Your task to perform on an android device: Clear all items from cart on target.com. Add "acer predator" to the cart on target.com Image 0: 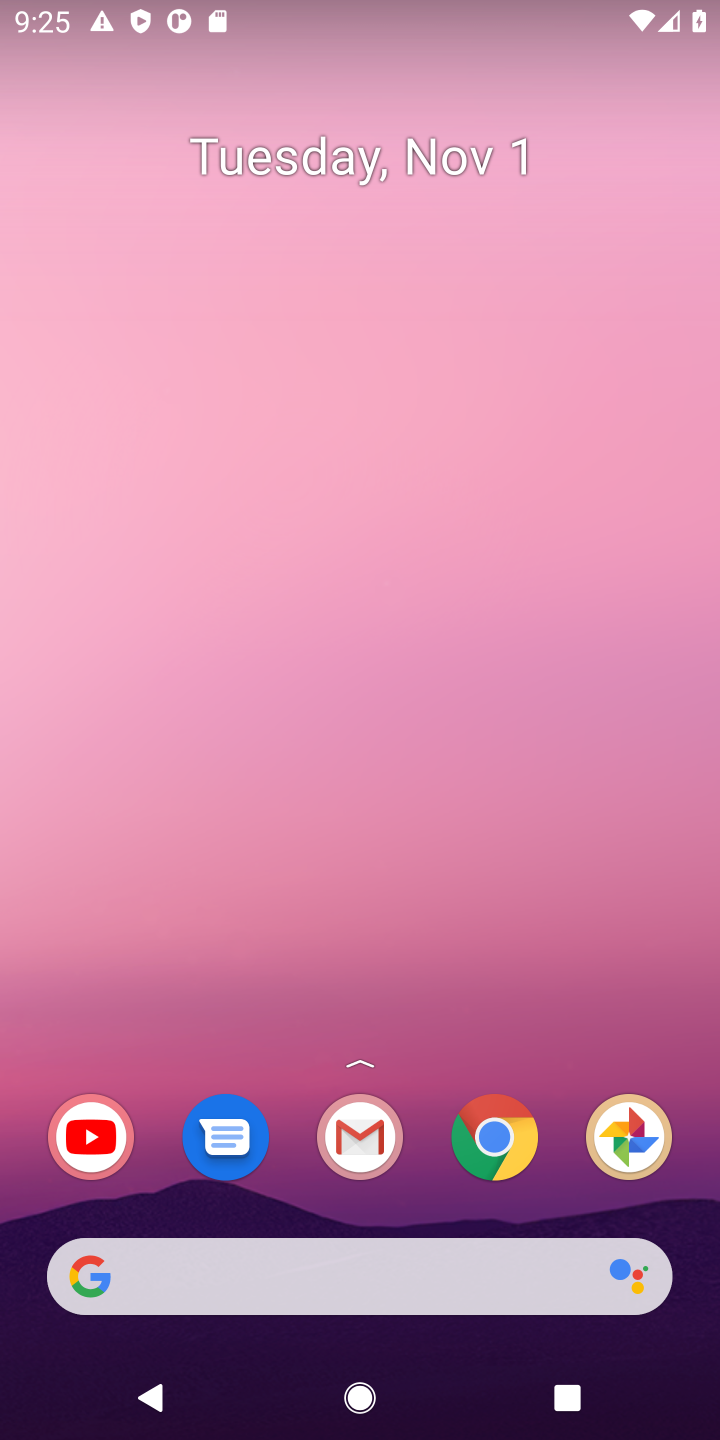
Step 0: click (516, 1129)
Your task to perform on an android device: Clear all items from cart on target.com. Add "acer predator" to the cart on target.com Image 1: 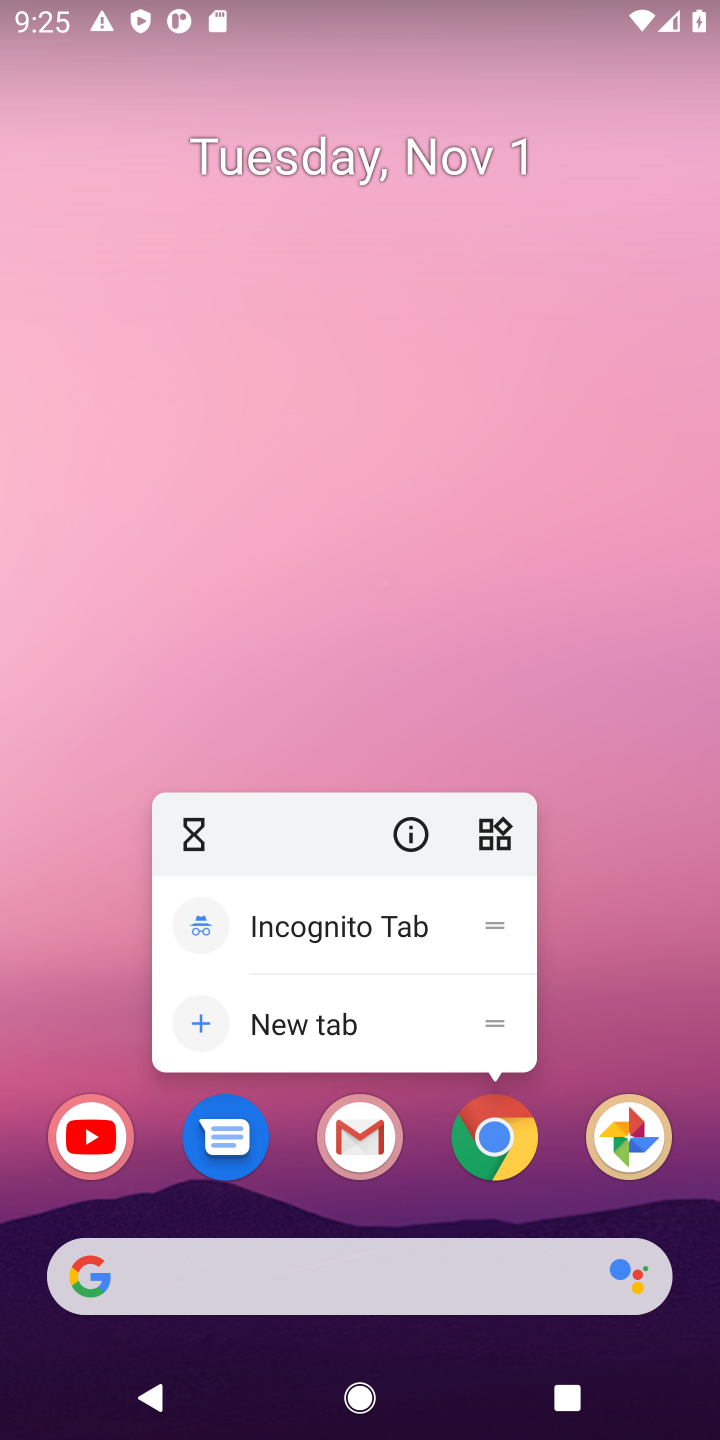
Step 1: click (465, 571)
Your task to perform on an android device: Clear all items from cart on target.com. Add "acer predator" to the cart on target.com Image 2: 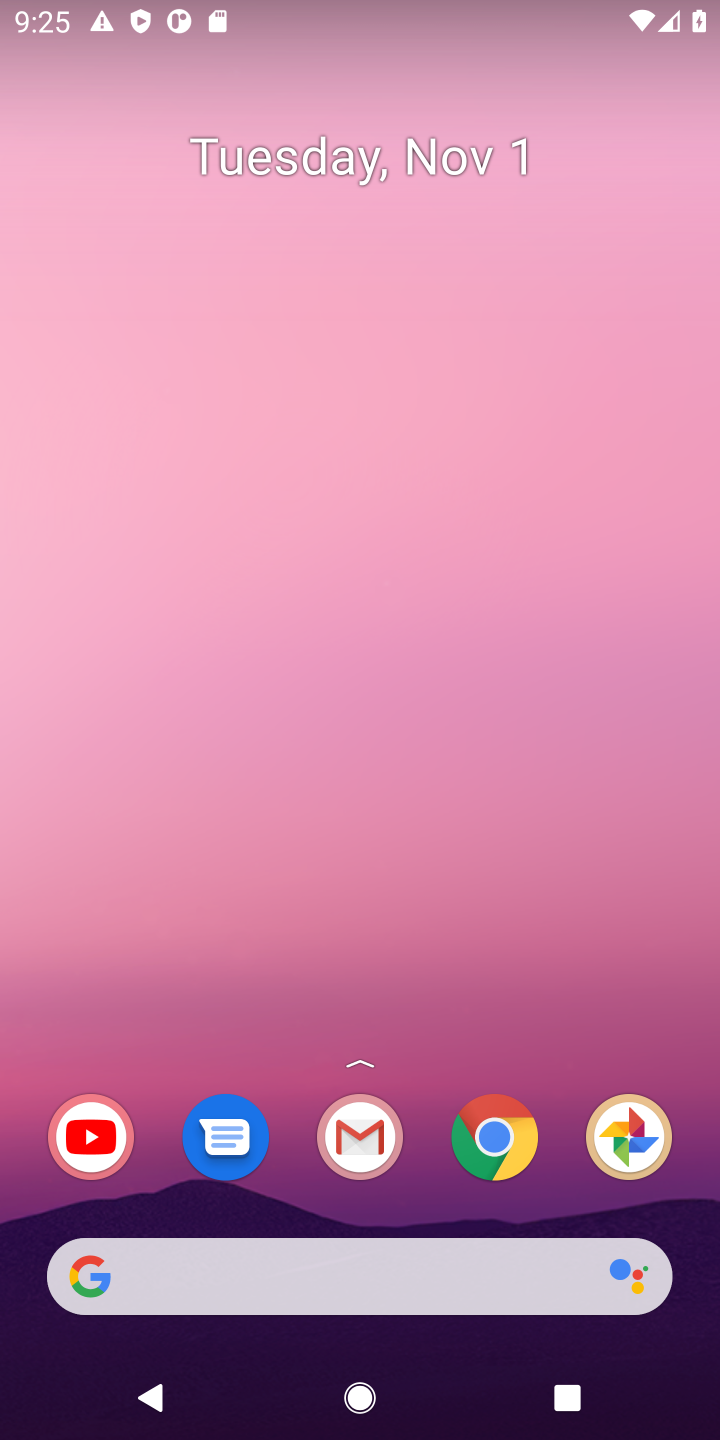
Step 2: click (498, 1136)
Your task to perform on an android device: Clear all items from cart on target.com. Add "acer predator" to the cart on target.com Image 3: 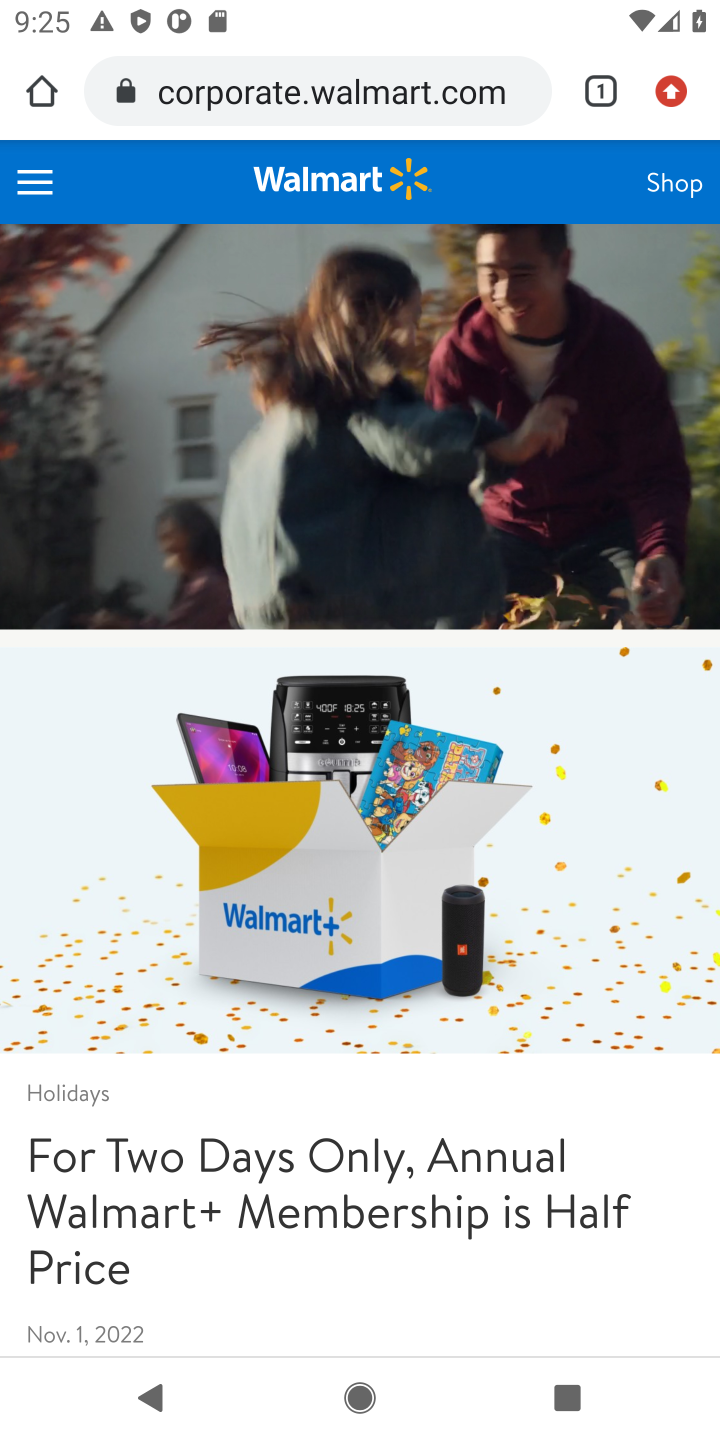
Step 3: click (367, 97)
Your task to perform on an android device: Clear all items from cart on target.com. Add "acer predator" to the cart on target.com Image 4: 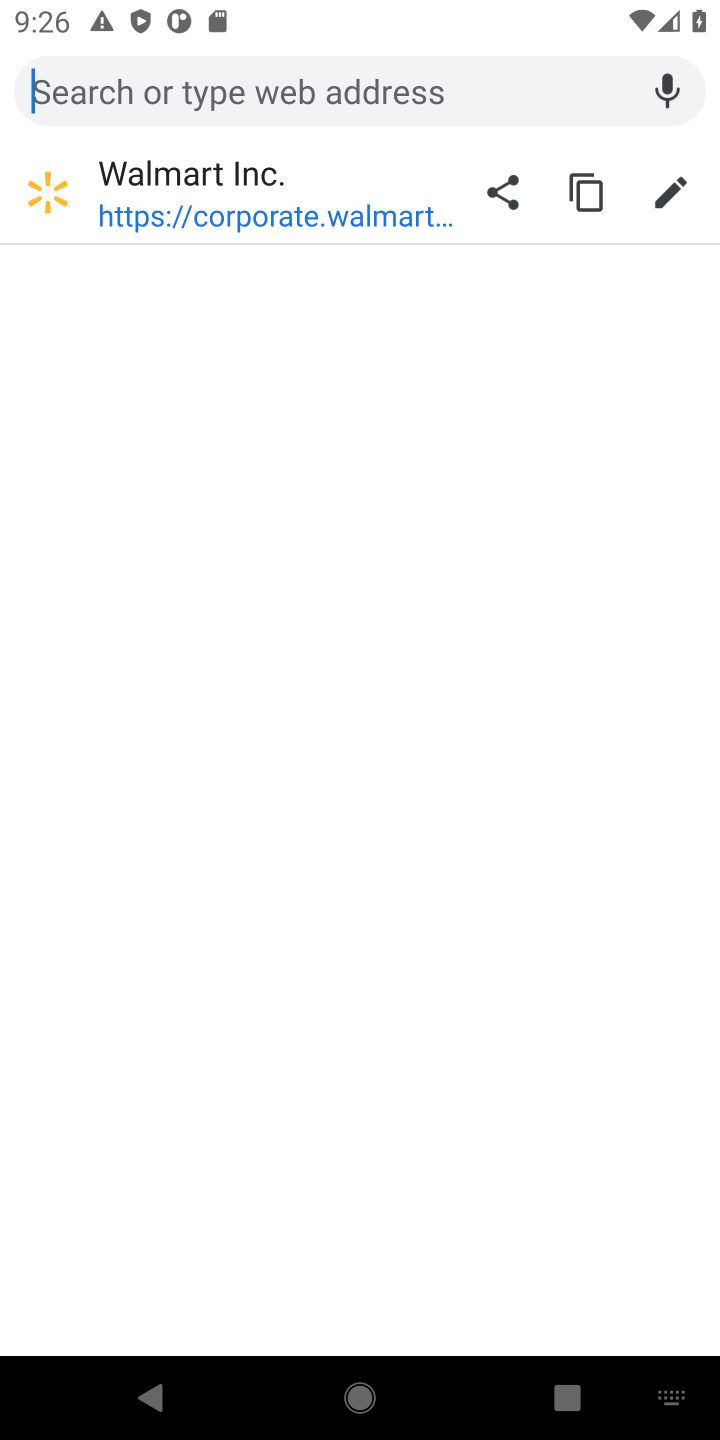
Step 4: type "target.com"
Your task to perform on an android device: Clear all items from cart on target.com. Add "acer predator" to the cart on target.com Image 5: 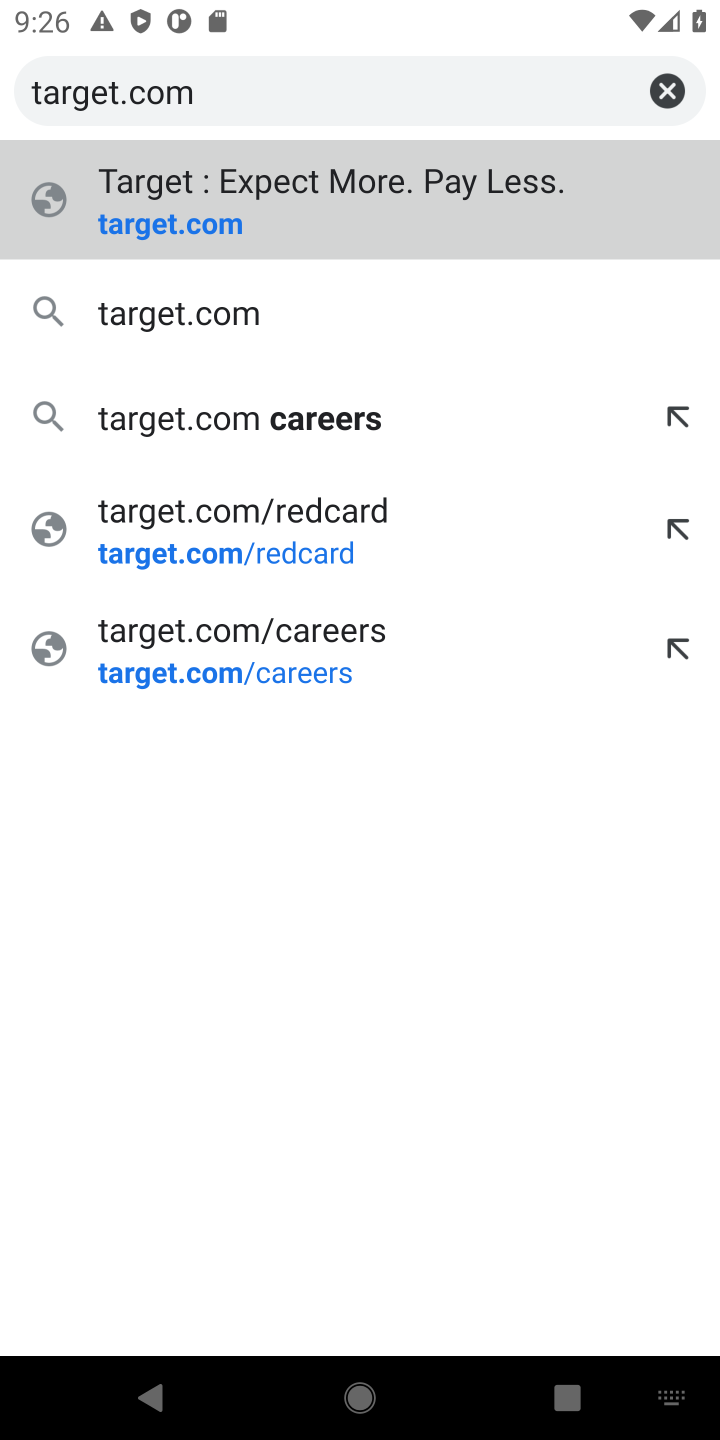
Step 5: press enter
Your task to perform on an android device: Clear all items from cart on target.com. Add "acer predator" to the cart on target.com Image 6: 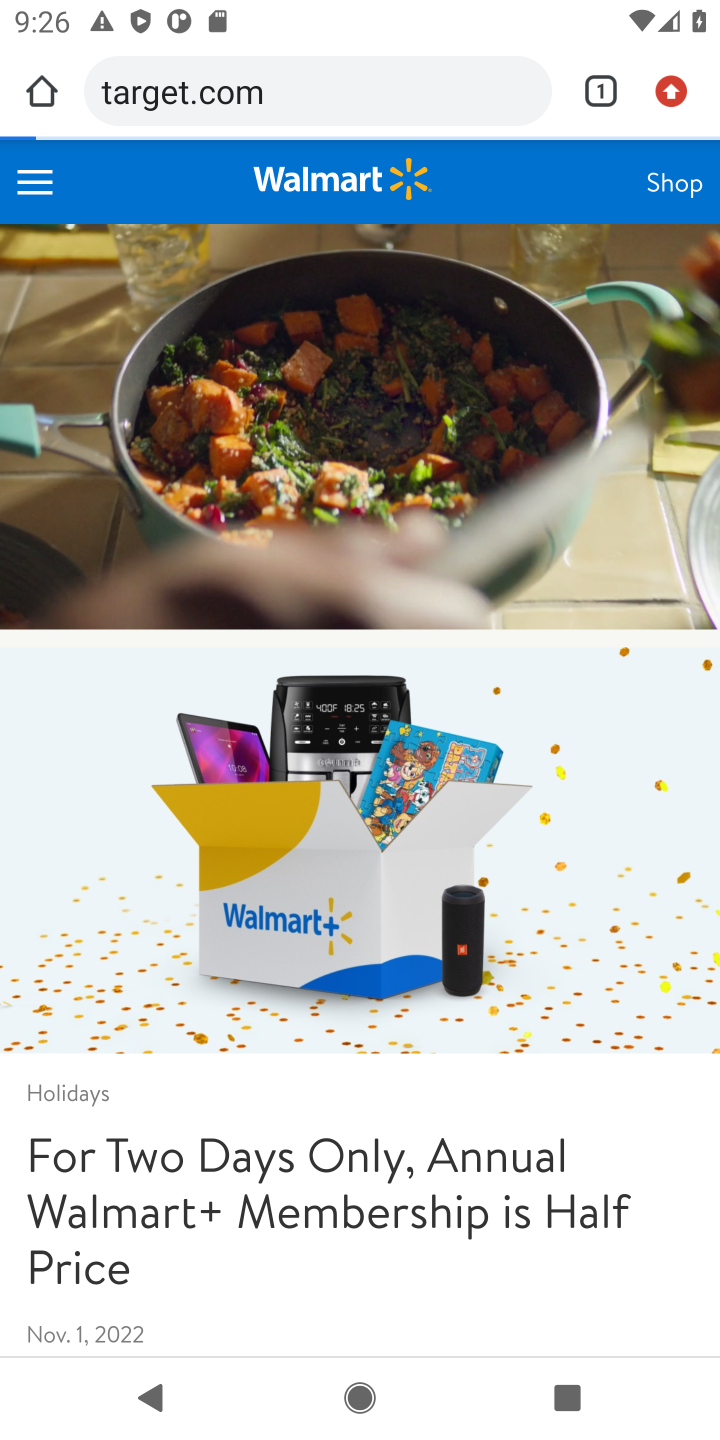
Step 6: click (312, 310)
Your task to perform on an android device: Clear all items from cart on target.com. Add "acer predator" to the cart on target.com Image 7: 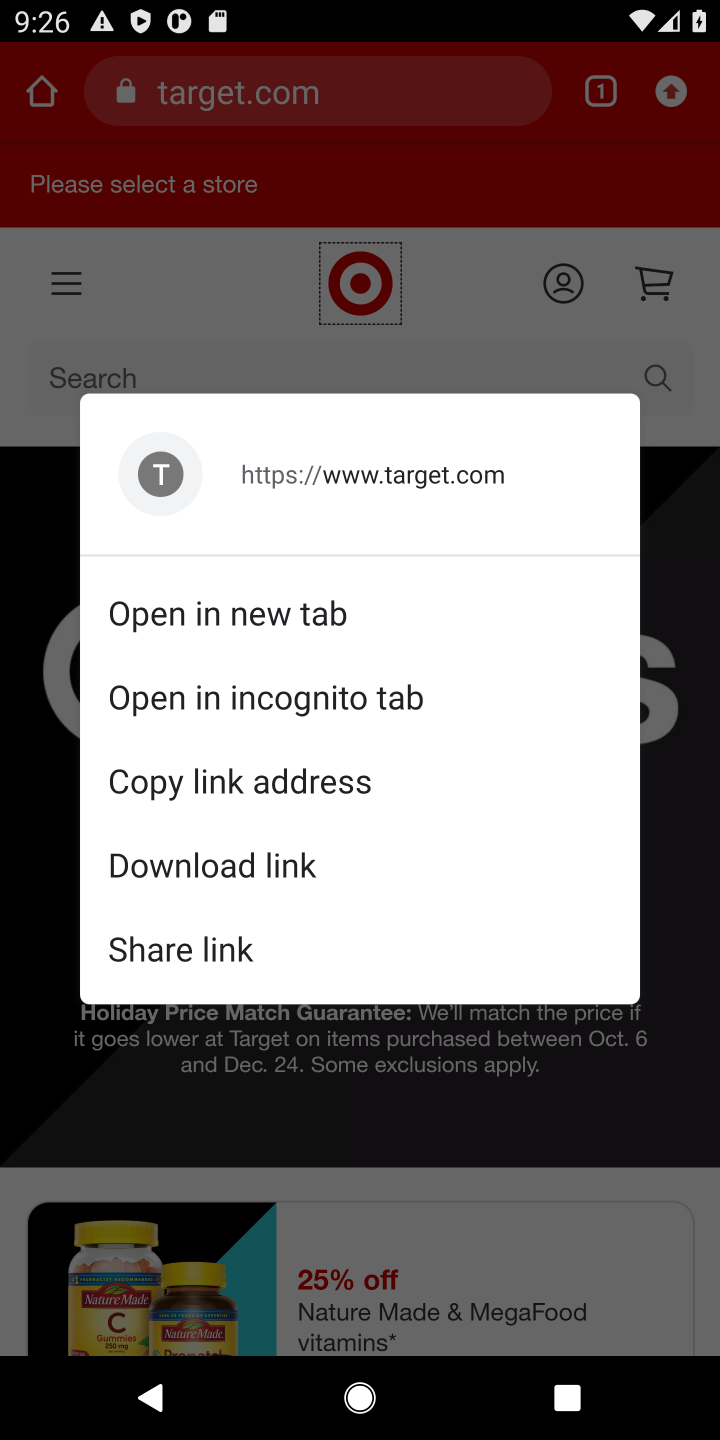
Step 7: click (228, 263)
Your task to perform on an android device: Clear all items from cart on target.com. Add "acer predator" to the cart on target.com Image 8: 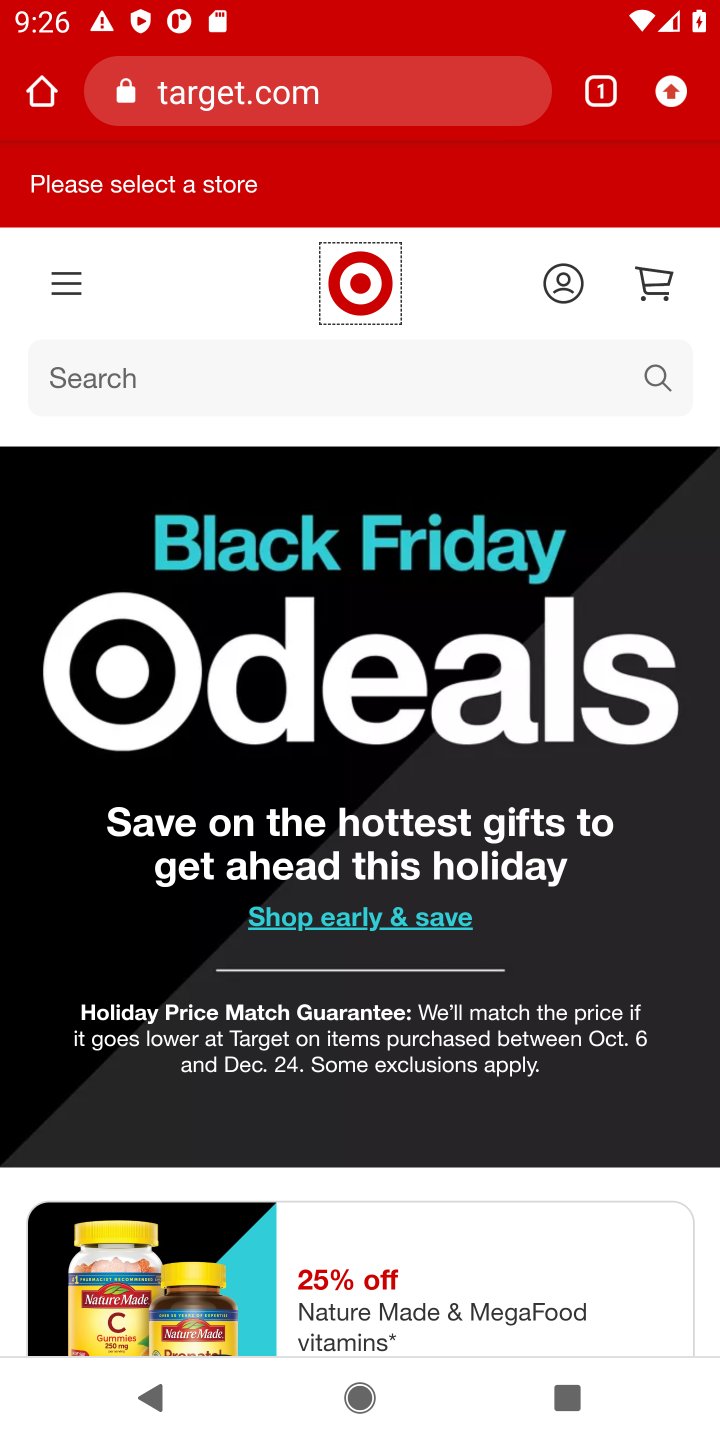
Step 8: click (654, 297)
Your task to perform on an android device: Clear all items from cart on target.com. Add "acer predator" to the cart on target.com Image 9: 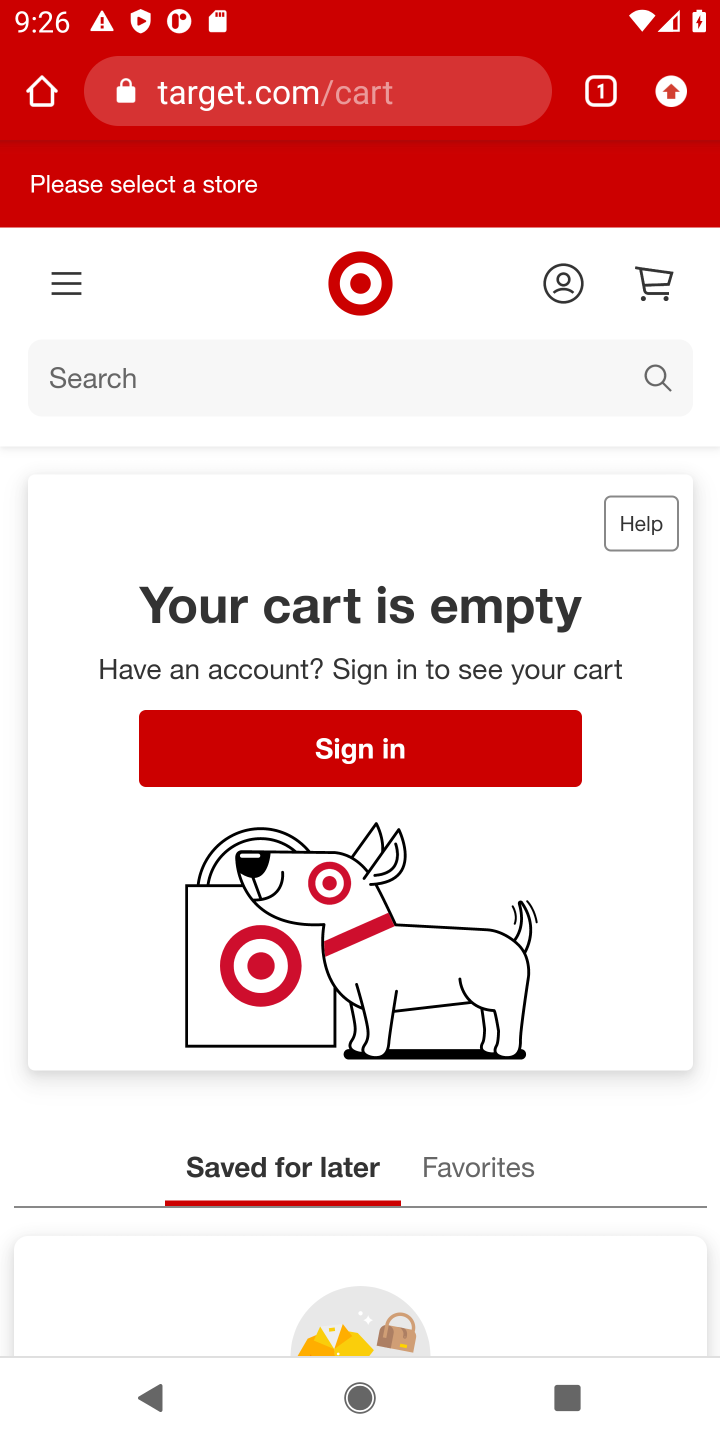
Step 9: click (659, 375)
Your task to perform on an android device: Clear all items from cart on target.com. Add "acer predator" to the cart on target.com Image 10: 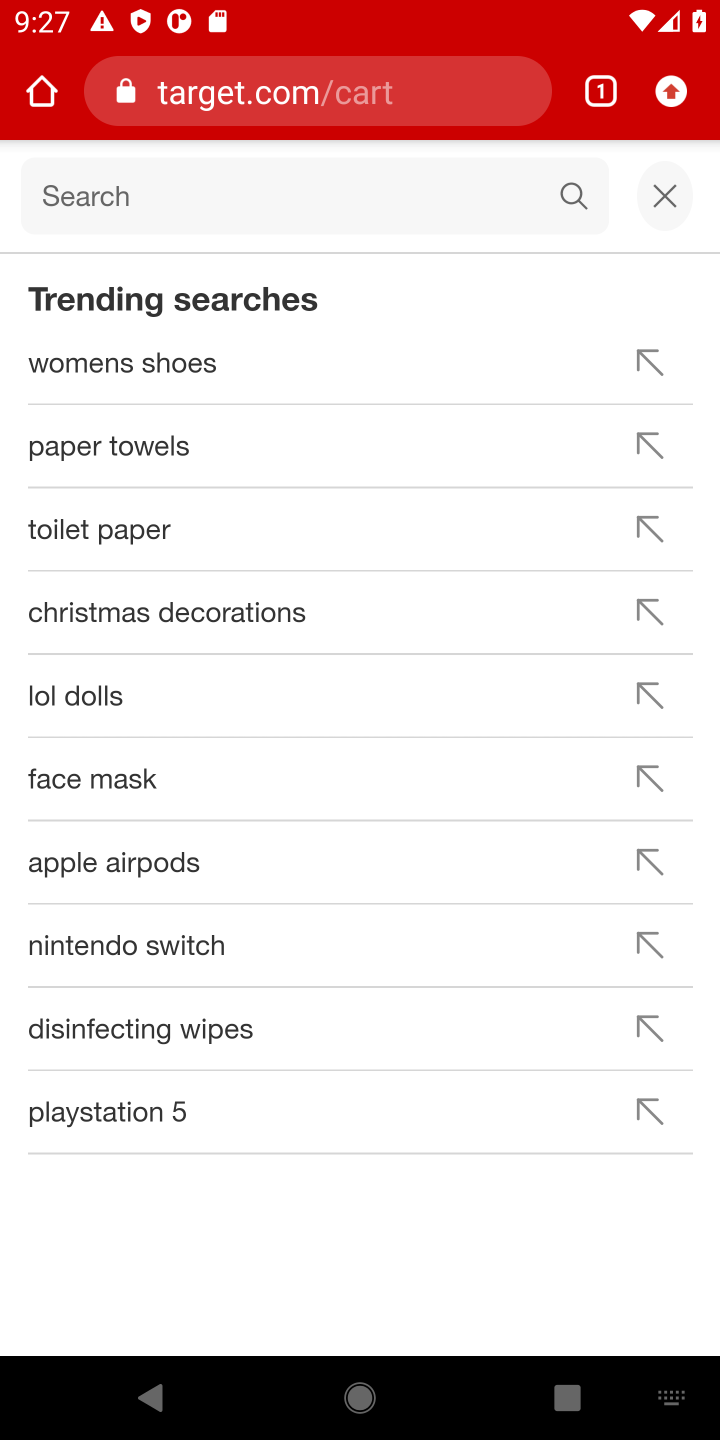
Step 10: type "acer predator"
Your task to perform on an android device: Clear all items from cart on target.com. Add "acer predator" to the cart on target.com Image 11: 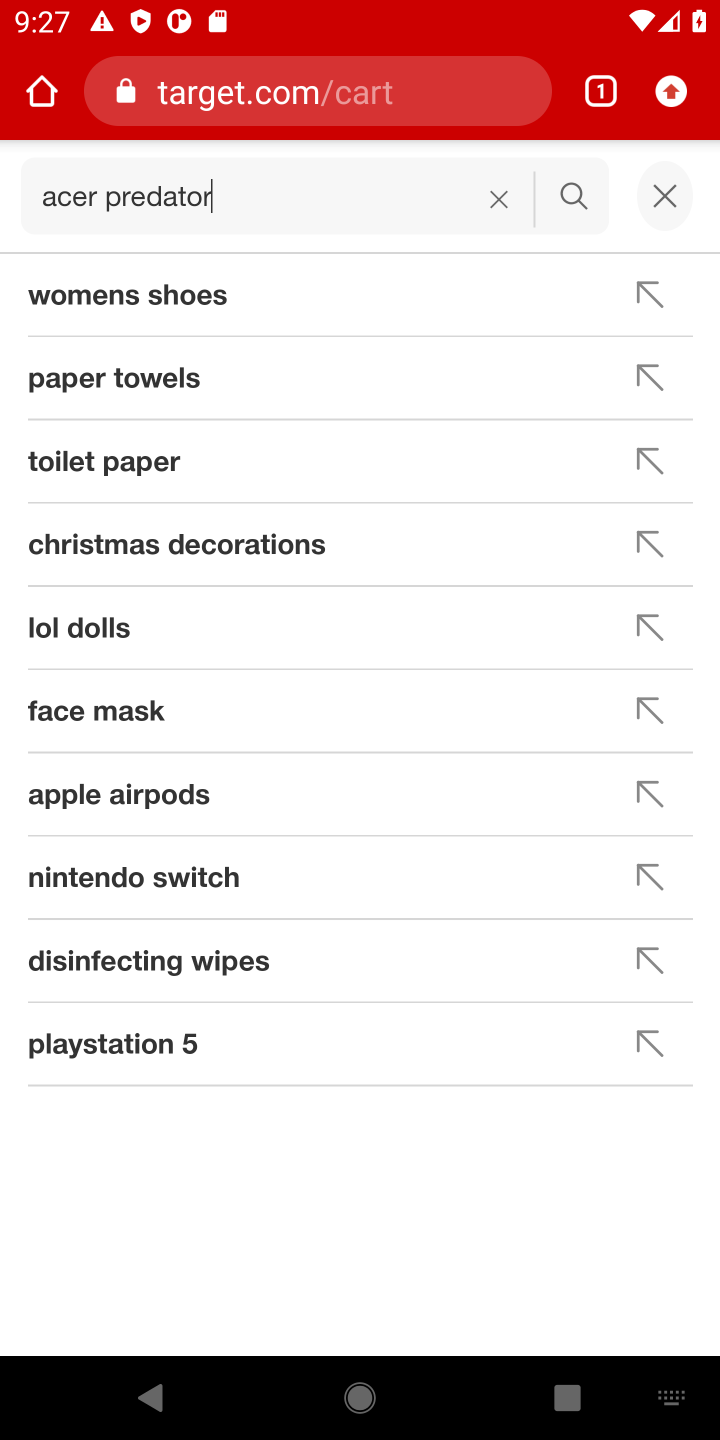
Step 11: press enter
Your task to perform on an android device: Clear all items from cart on target.com. Add "acer predator" to the cart on target.com Image 12: 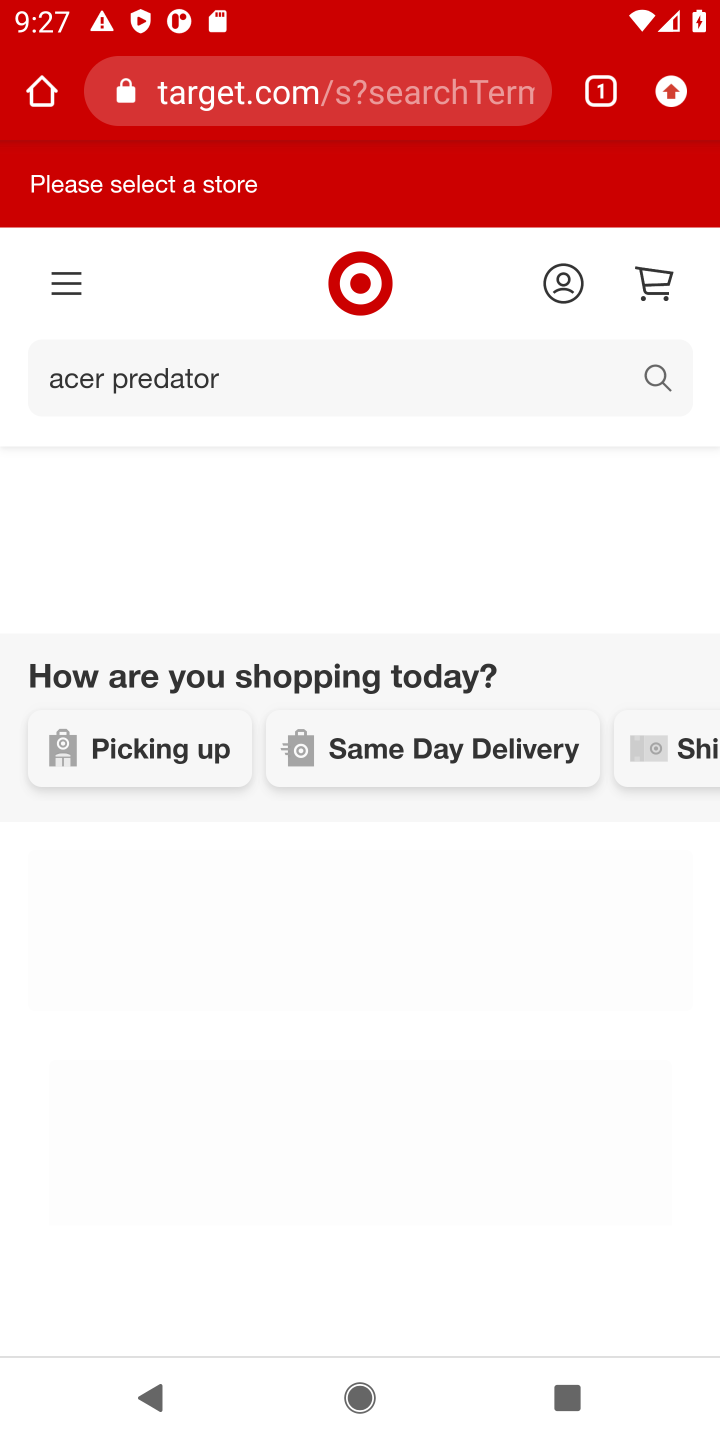
Step 12: drag from (329, 1078) to (356, 532)
Your task to perform on an android device: Clear all items from cart on target.com. Add "acer predator" to the cart on target.com Image 13: 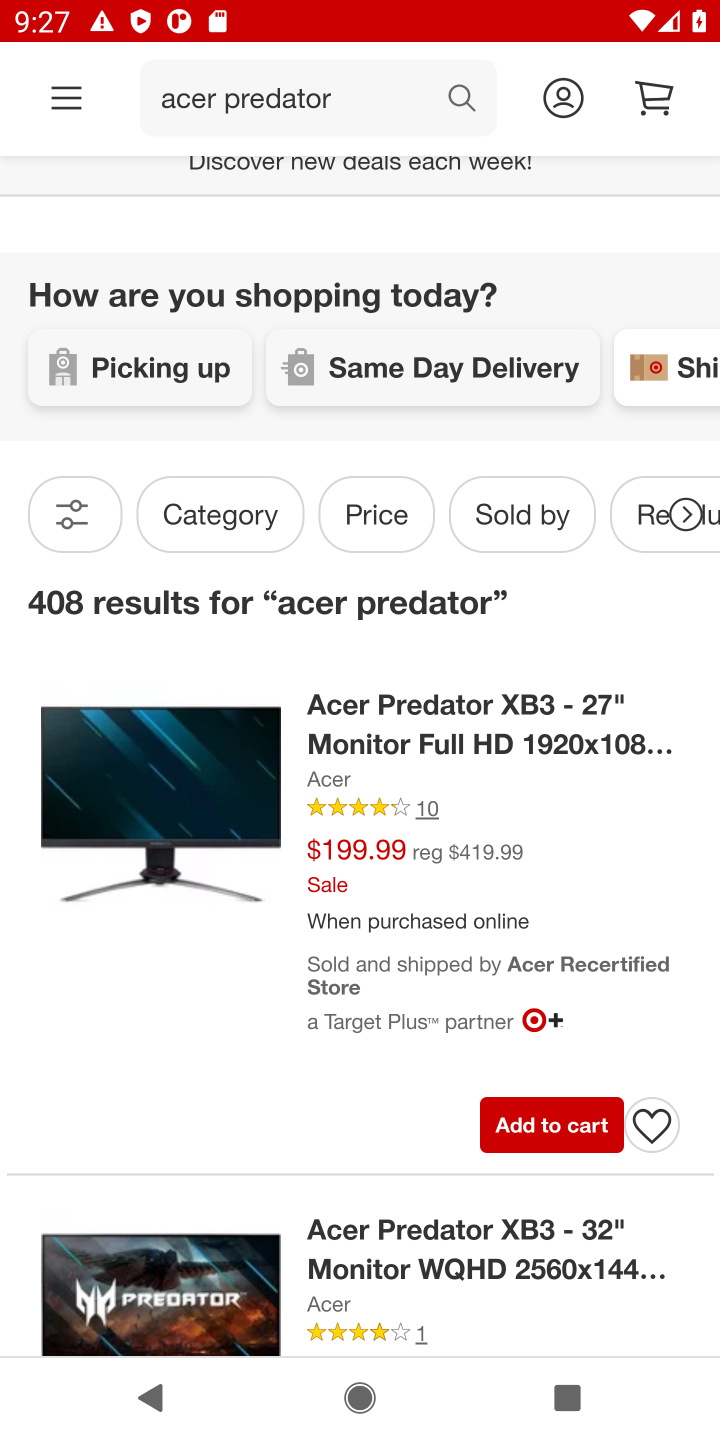
Step 13: click (158, 796)
Your task to perform on an android device: Clear all items from cart on target.com. Add "acer predator" to the cart on target.com Image 14: 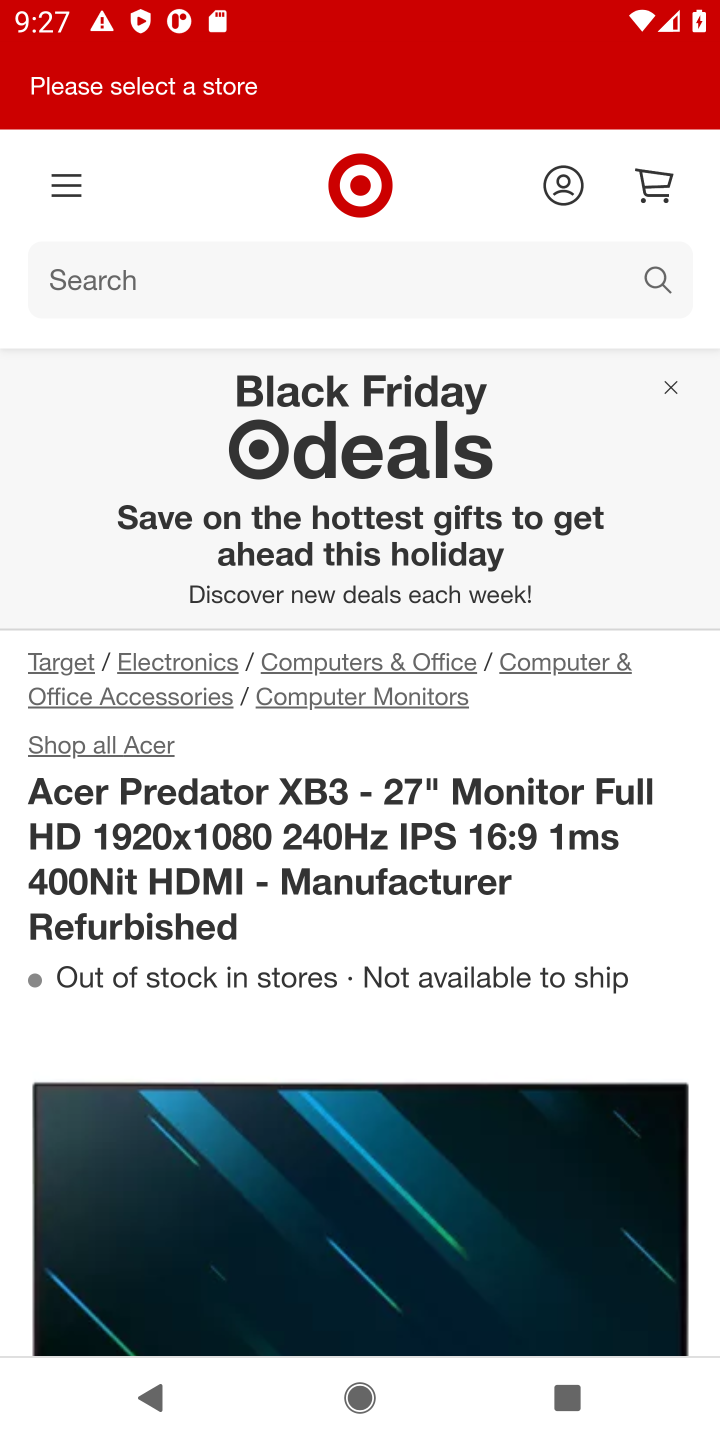
Step 14: drag from (373, 1122) to (518, 346)
Your task to perform on an android device: Clear all items from cart on target.com. Add "acer predator" to the cart on target.com Image 15: 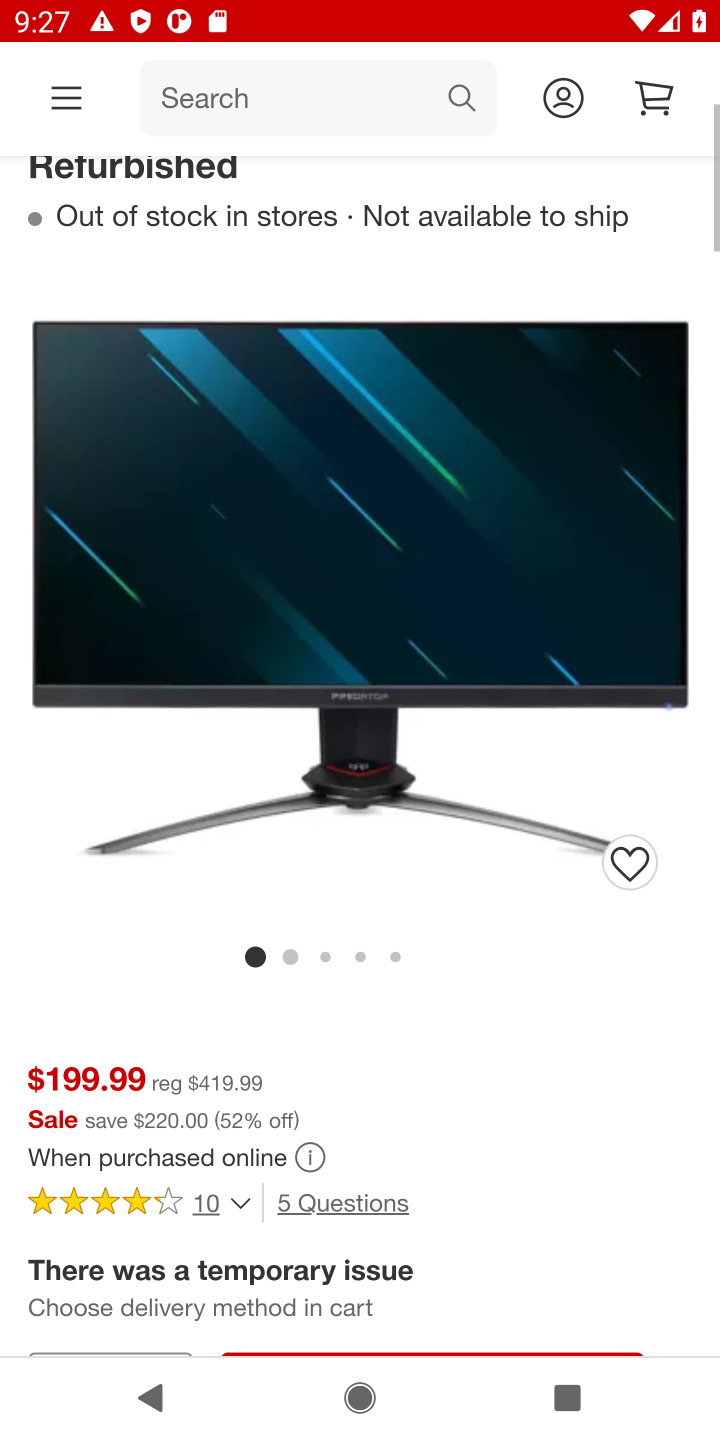
Step 15: drag from (521, 912) to (522, 486)
Your task to perform on an android device: Clear all items from cart on target.com. Add "acer predator" to the cart on target.com Image 16: 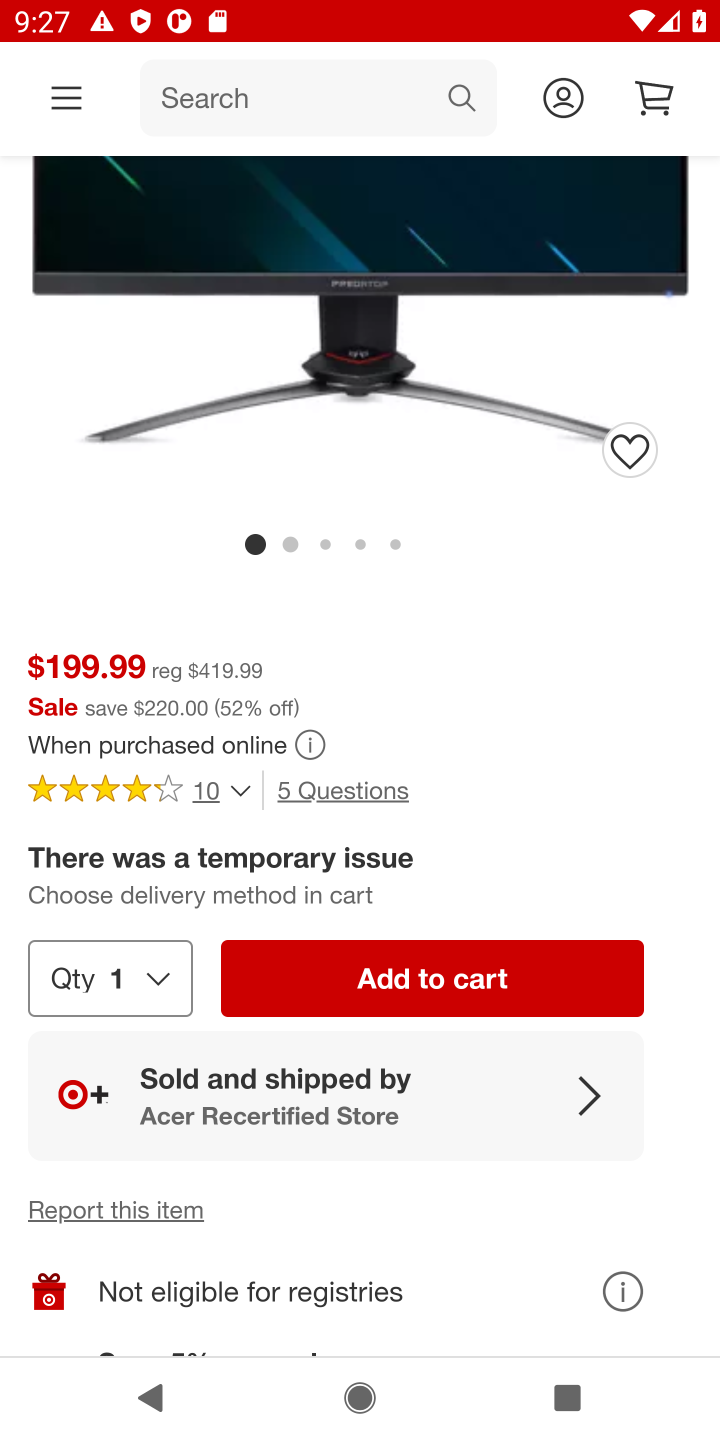
Step 16: click (475, 986)
Your task to perform on an android device: Clear all items from cart on target.com. Add "acer predator" to the cart on target.com Image 17: 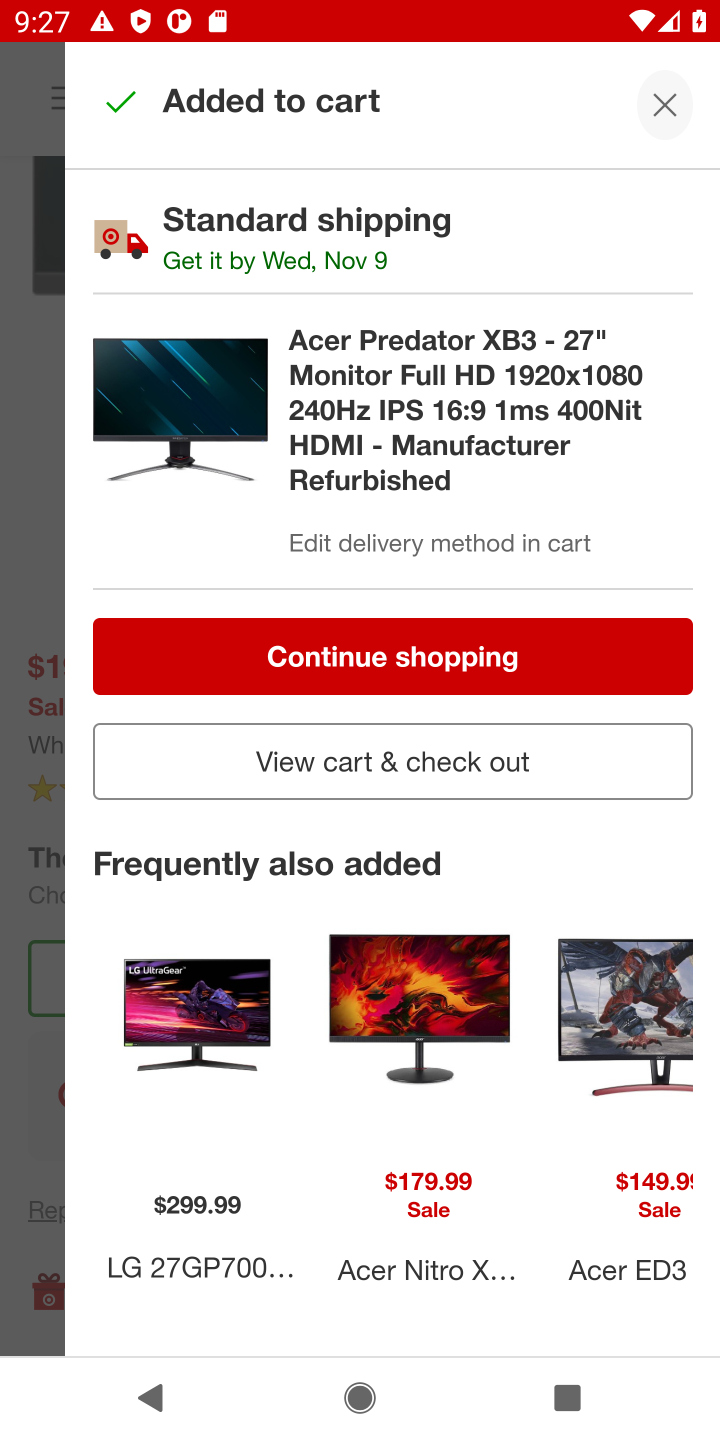
Step 17: task complete